Your task to perform on an android device: turn on the 12-hour format for clock Image 0: 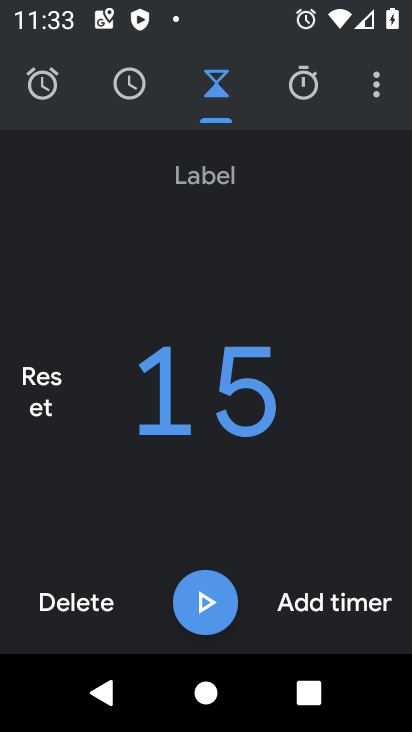
Step 0: press home button
Your task to perform on an android device: turn on the 12-hour format for clock Image 1: 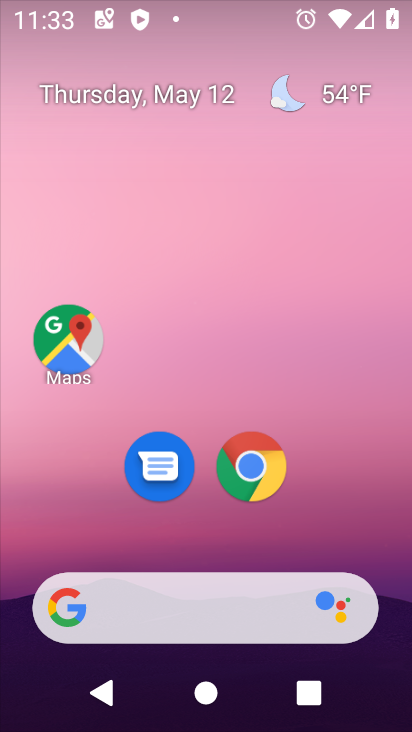
Step 1: drag from (365, 547) to (324, 183)
Your task to perform on an android device: turn on the 12-hour format for clock Image 2: 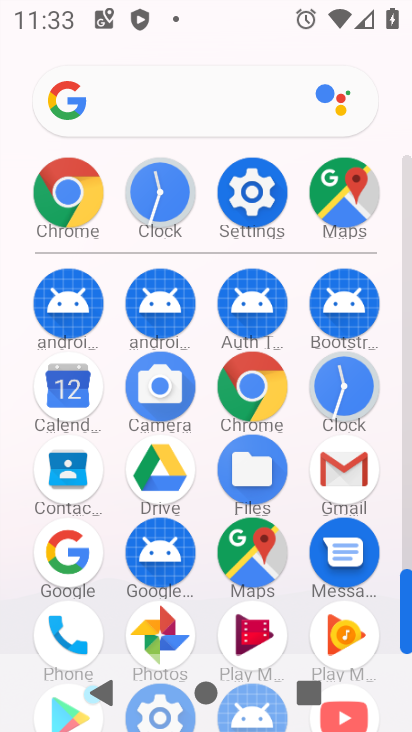
Step 2: click (342, 383)
Your task to perform on an android device: turn on the 12-hour format for clock Image 3: 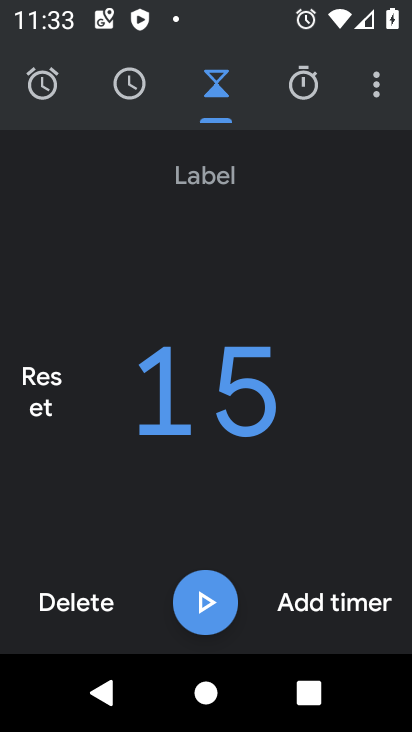
Step 3: click (383, 95)
Your task to perform on an android device: turn on the 12-hour format for clock Image 4: 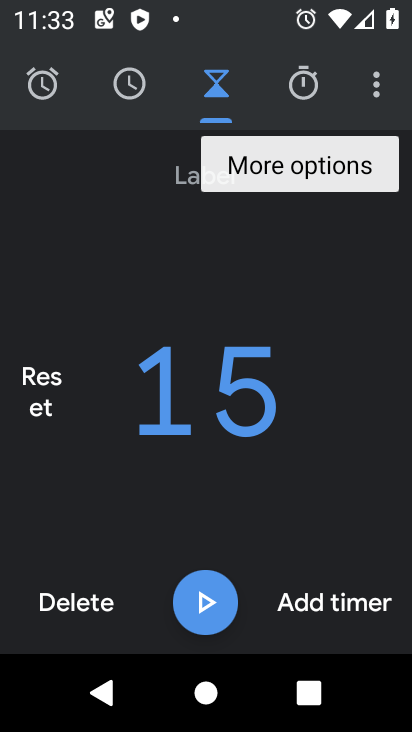
Step 4: click (384, 96)
Your task to perform on an android device: turn on the 12-hour format for clock Image 5: 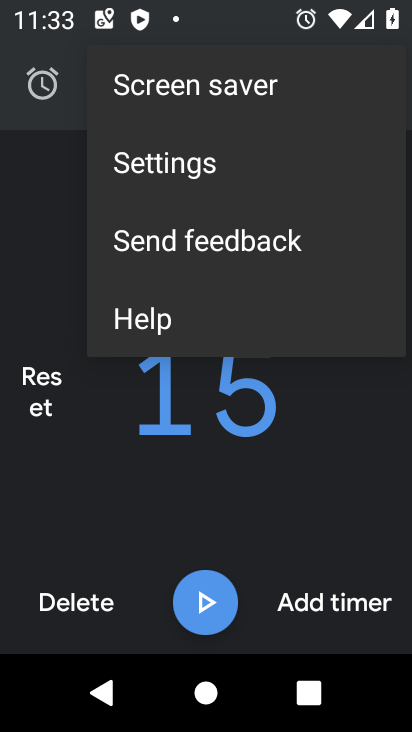
Step 5: click (270, 169)
Your task to perform on an android device: turn on the 12-hour format for clock Image 6: 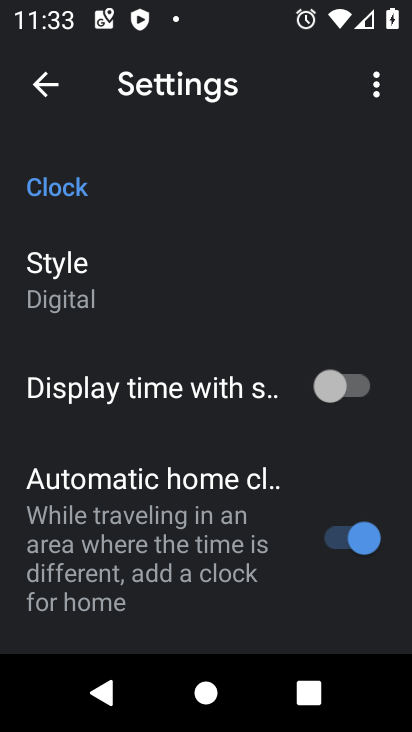
Step 6: drag from (206, 602) to (224, 282)
Your task to perform on an android device: turn on the 12-hour format for clock Image 7: 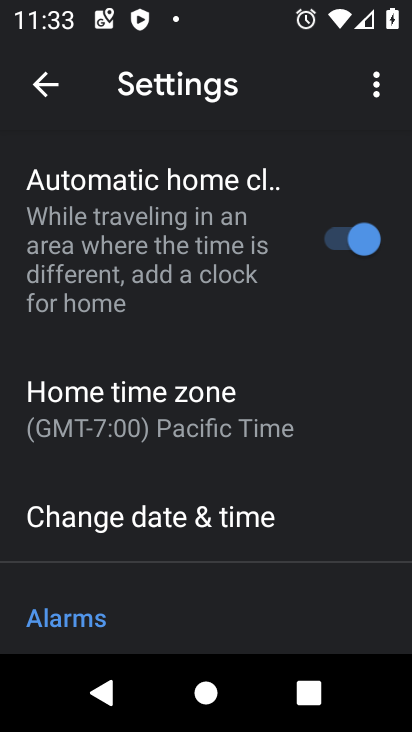
Step 7: click (227, 520)
Your task to perform on an android device: turn on the 12-hour format for clock Image 8: 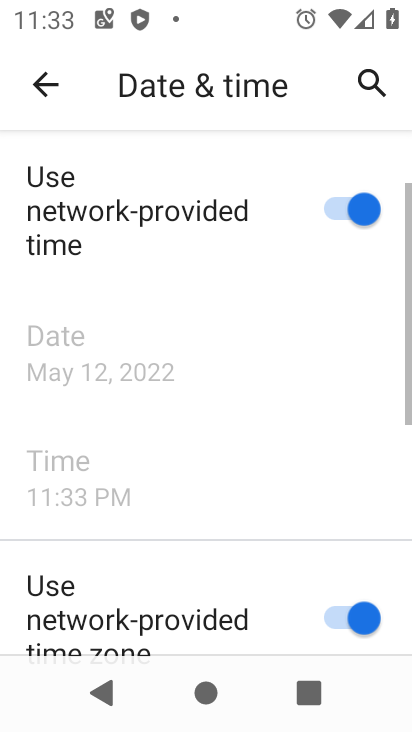
Step 8: task complete